Your task to perform on an android device: toggle airplane mode Image 0: 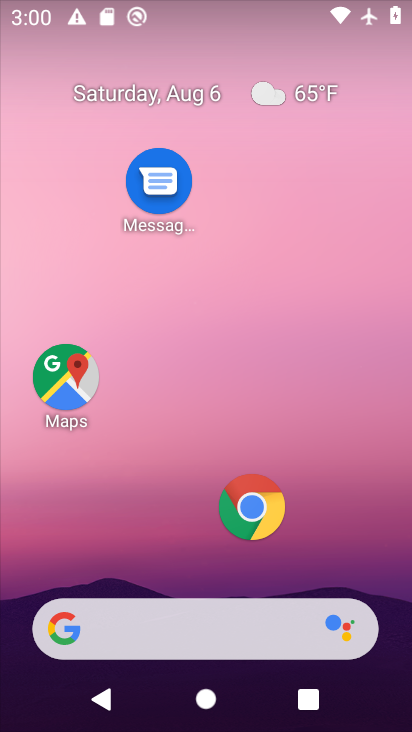
Step 0: drag from (160, 547) to (197, 84)
Your task to perform on an android device: toggle airplane mode Image 1: 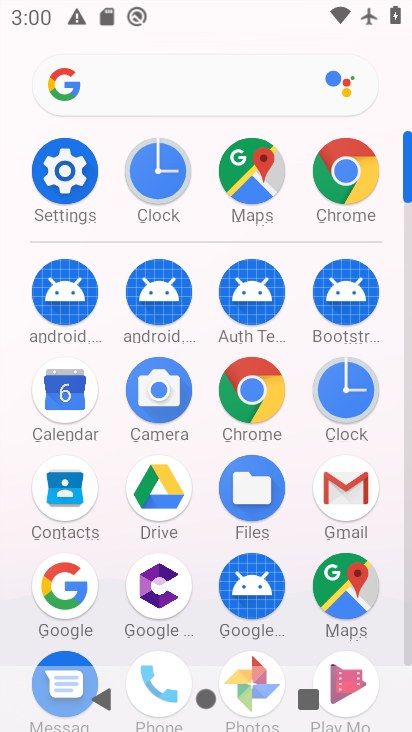
Step 1: click (69, 180)
Your task to perform on an android device: toggle airplane mode Image 2: 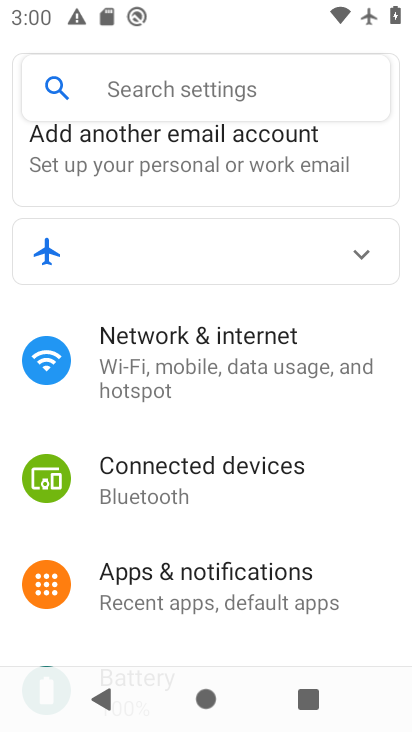
Step 2: click (184, 348)
Your task to perform on an android device: toggle airplane mode Image 3: 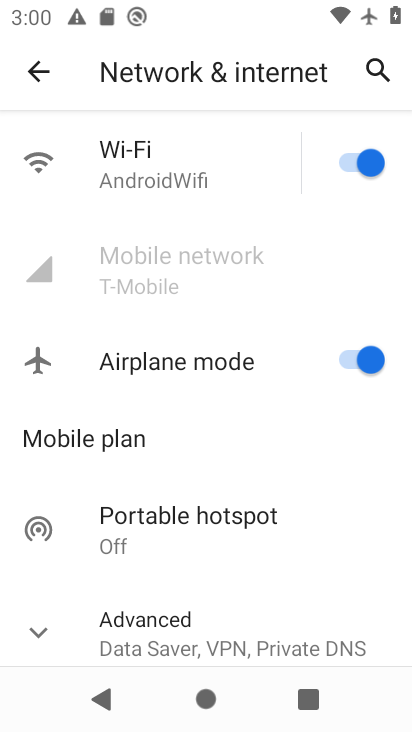
Step 3: click (336, 367)
Your task to perform on an android device: toggle airplane mode Image 4: 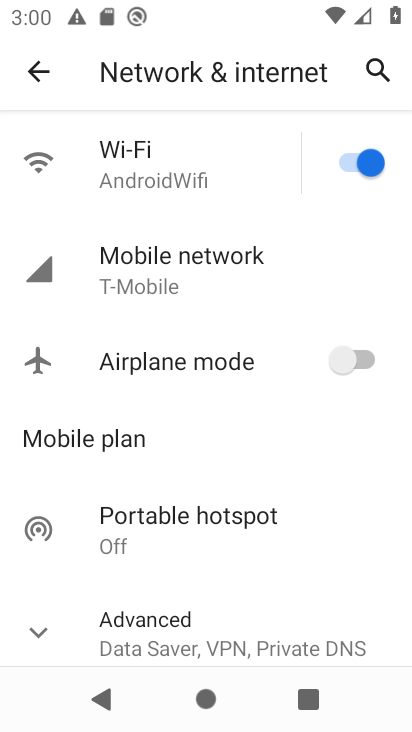
Step 4: task complete